Your task to perform on an android device: Go to sound settings Image 0: 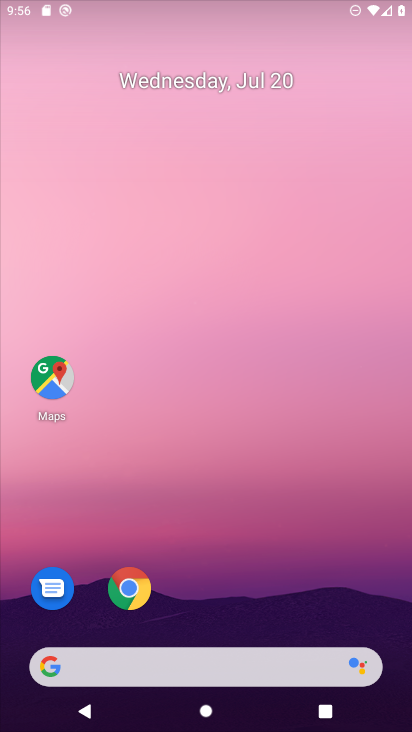
Step 0: drag from (160, 8) to (179, 579)
Your task to perform on an android device: Go to sound settings Image 1: 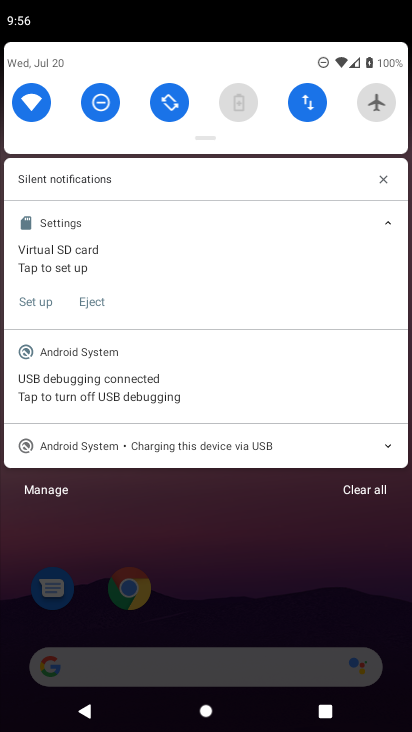
Step 1: drag from (207, 60) to (248, 575)
Your task to perform on an android device: Go to sound settings Image 2: 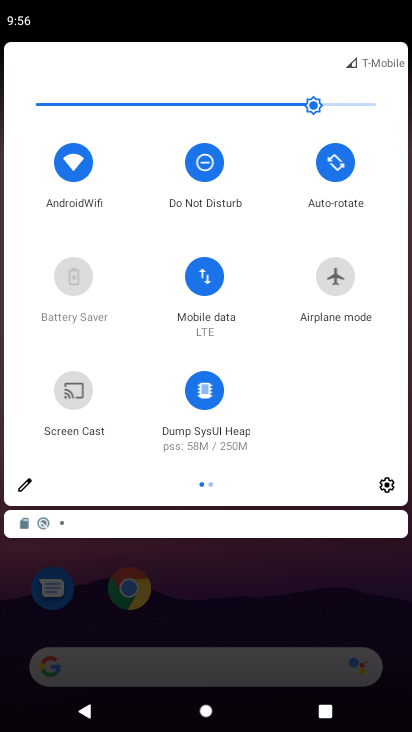
Step 2: click (390, 468)
Your task to perform on an android device: Go to sound settings Image 3: 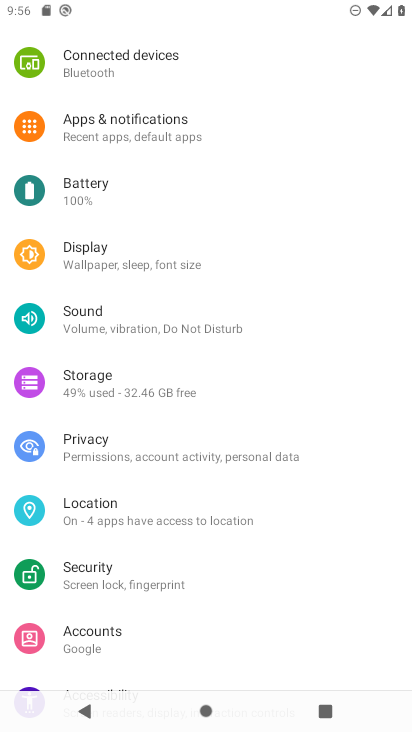
Step 3: click (180, 333)
Your task to perform on an android device: Go to sound settings Image 4: 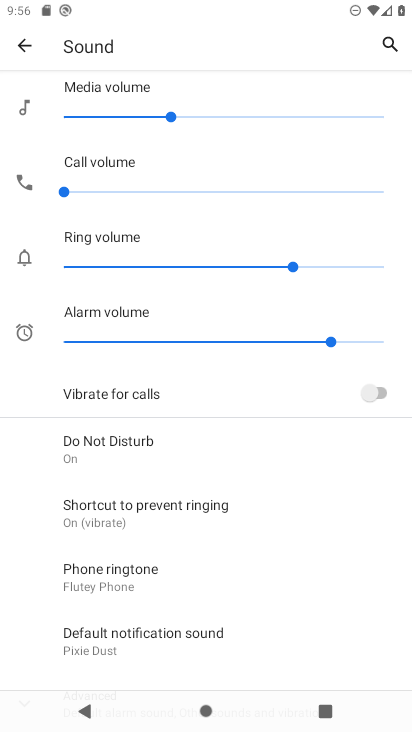
Step 4: task complete